Your task to perform on an android device: Open CNN.com Image 0: 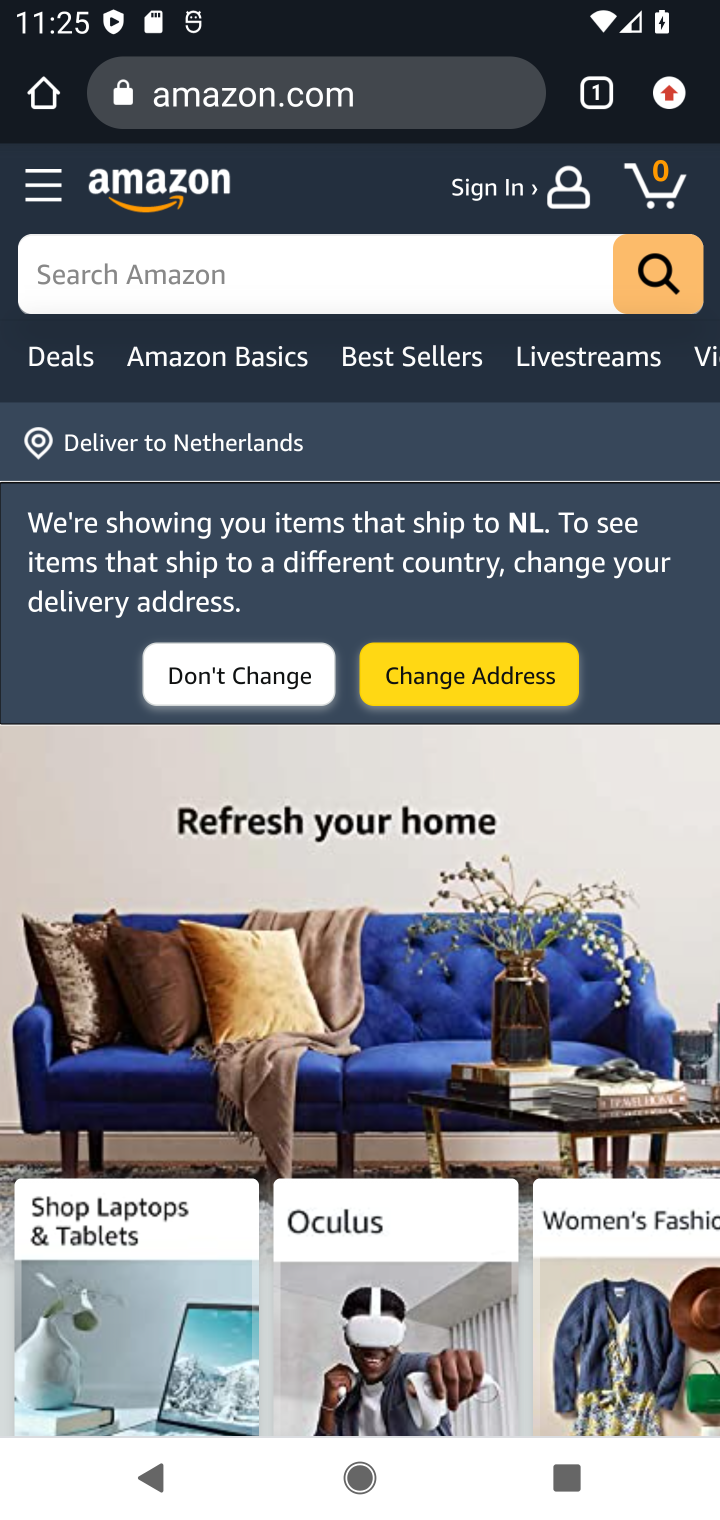
Step 0: click (395, 87)
Your task to perform on an android device: Open CNN.com Image 1: 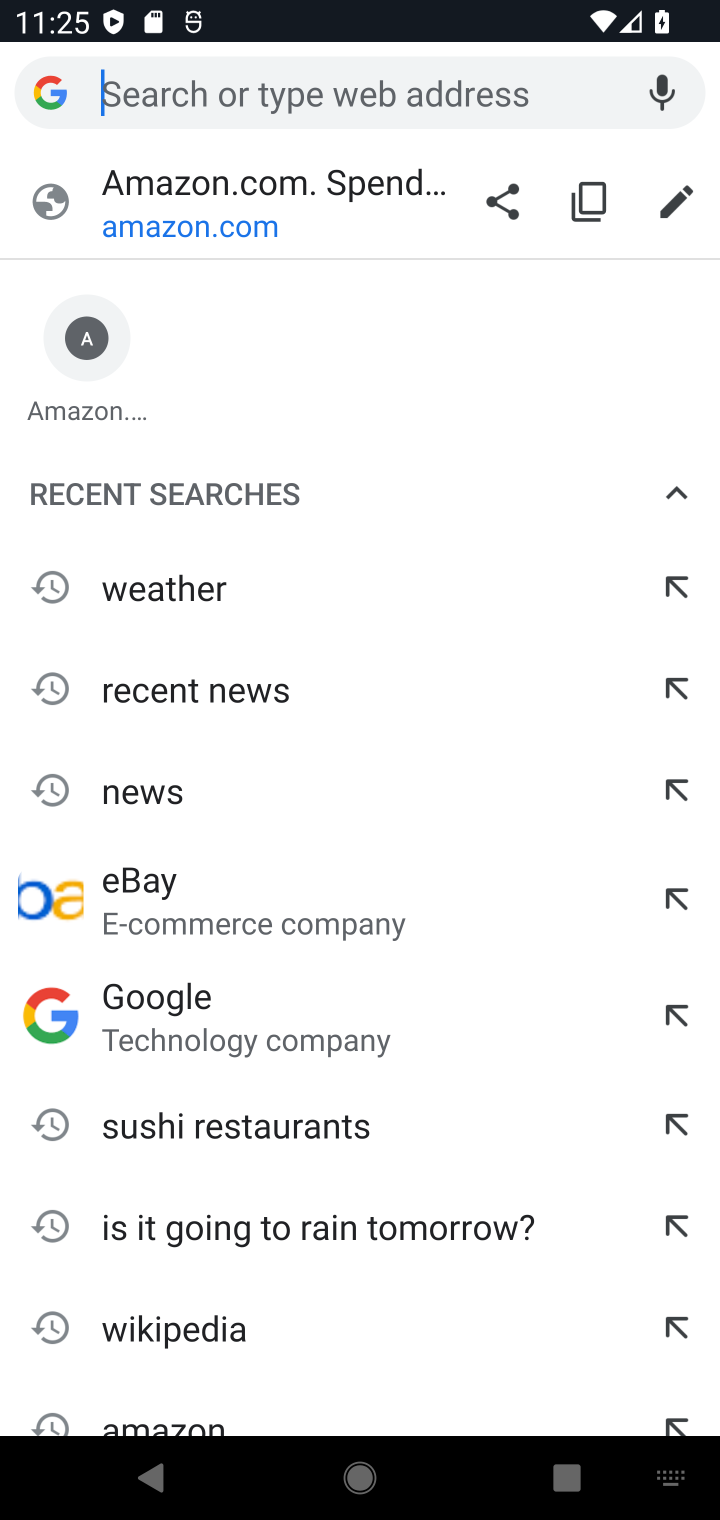
Step 1: type "cnn.com"
Your task to perform on an android device: Open CNN.com Image 2: 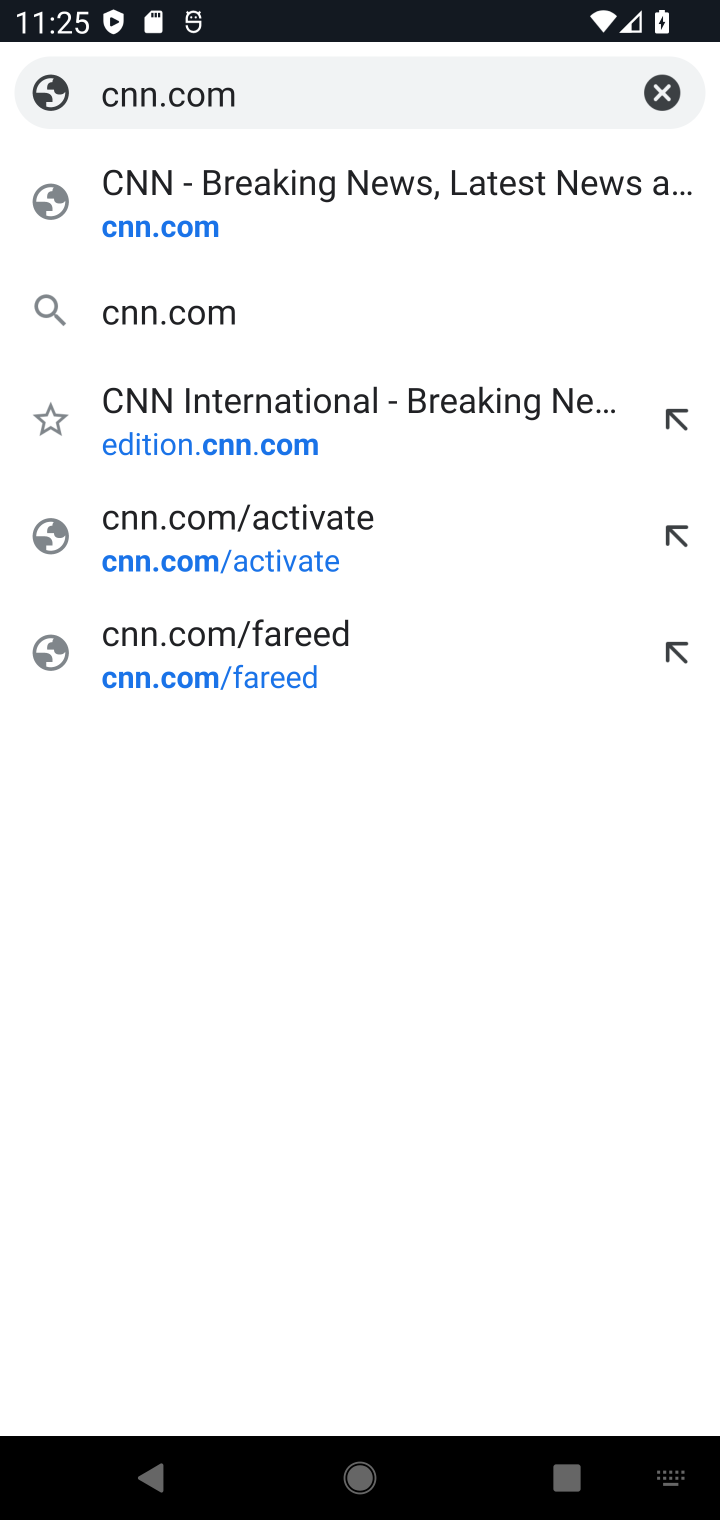
Step 2: click (210, 229)
Your task to perform on an android device: Open CNN.com Image 3: 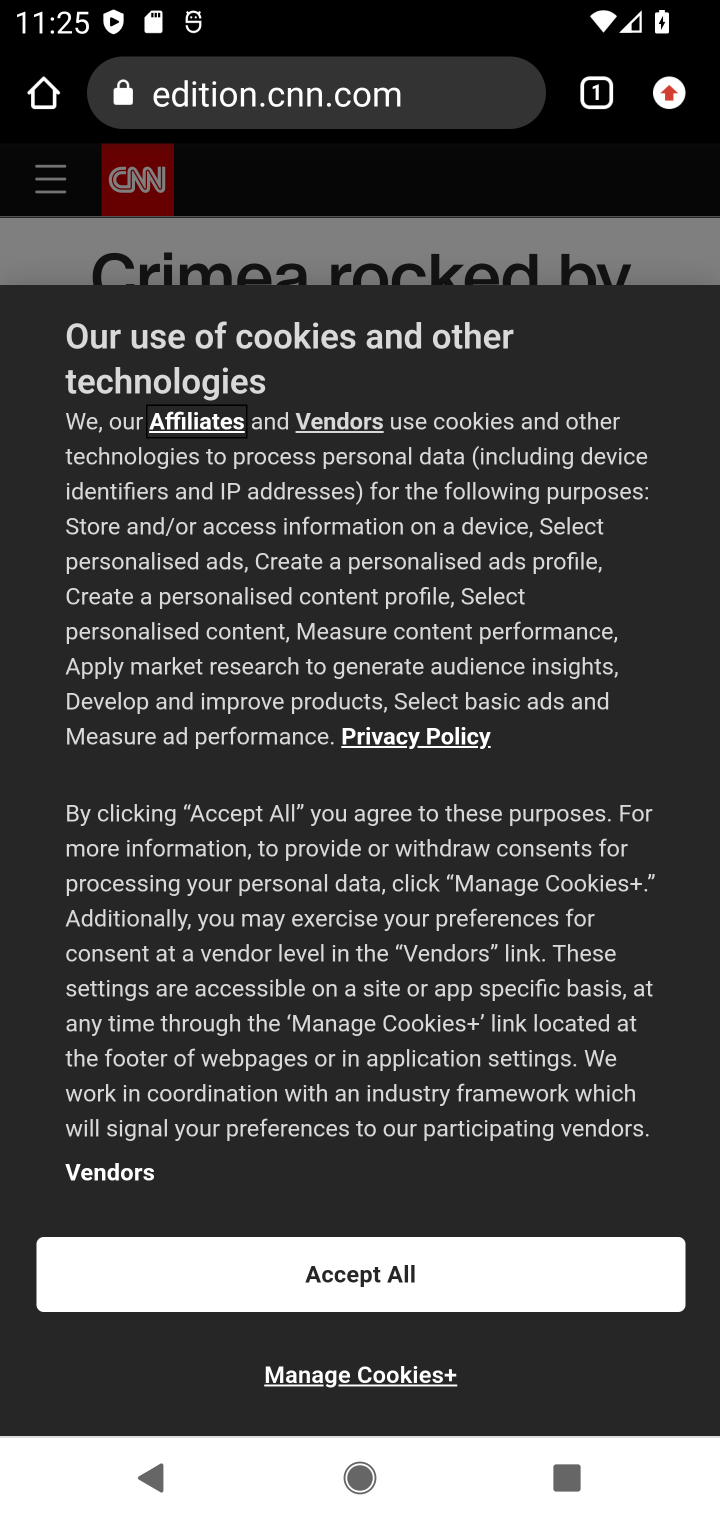
Step 3: task complete